Your task to perform on an android device: Set the phone to "Do not disturb". Image 0: 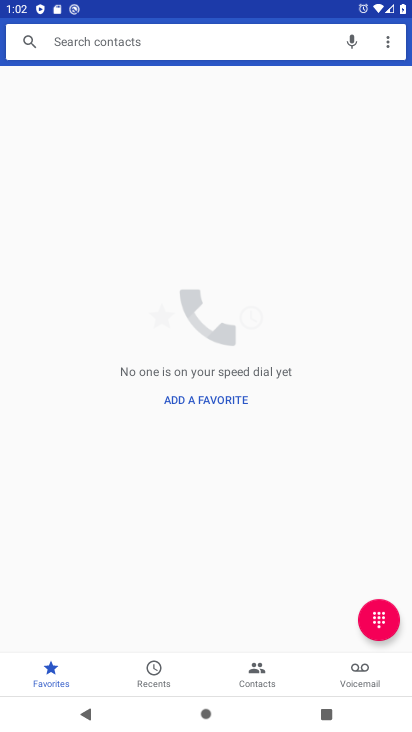
Step 0: press home button
Your task to perform on an android device: Set the phone to "Do not disturb". Image 1: 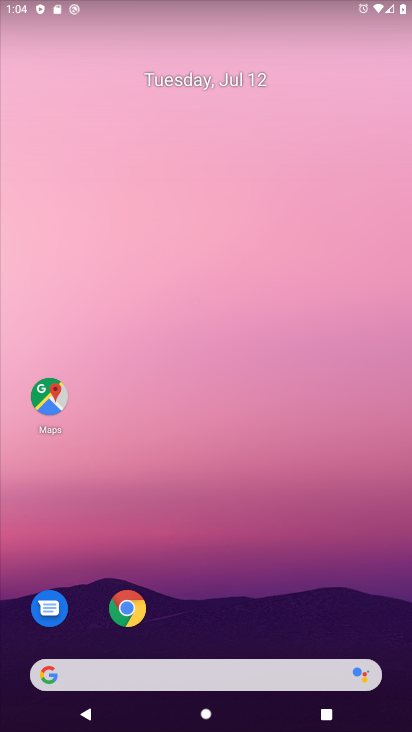
Step 1: drag from (195, 659) to (196, 149)
Your task to perform on an android device: Set the phone to "Do not disturb". Image 2: 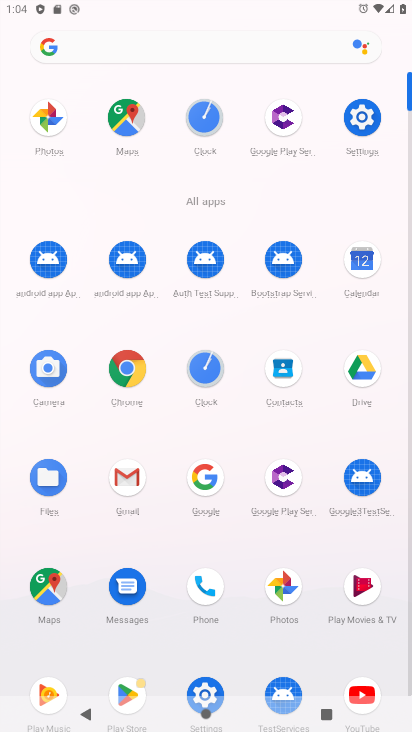
Step 2: click (361, 114)
Your task to perform on an android device: Set the phone to "Do not disturb". Image 3: 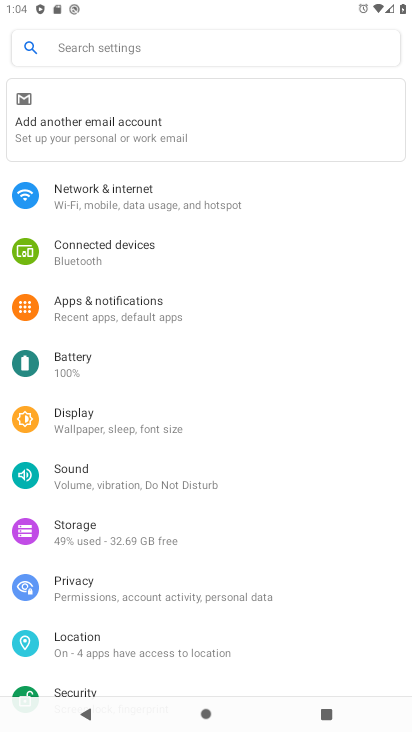
Step 3: click (138, 483)
Your task to perform on an android device: Set the phone to "Do not disturb". Image 4: 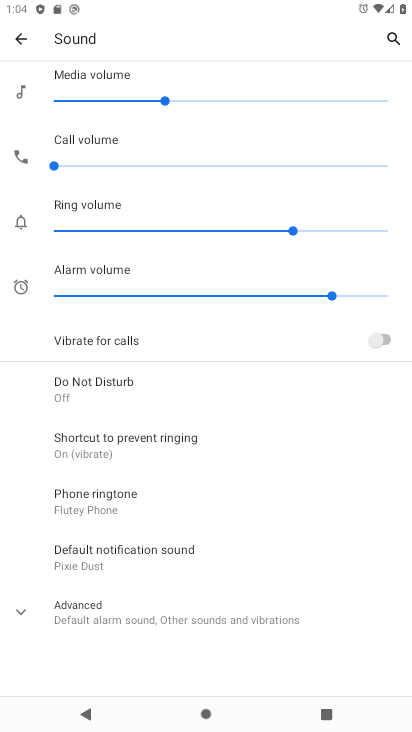
Step 4: click (100, 390)
Your task to perform on an android device: Set the phone to "Do not disturb". Image 5: 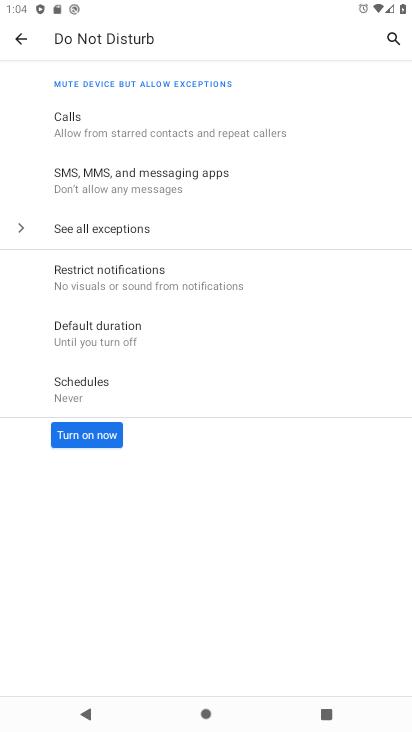
Step 5: click (108, 433)
Your task to perform on an android device: Set the phone to "Do not disturb". Image 6: 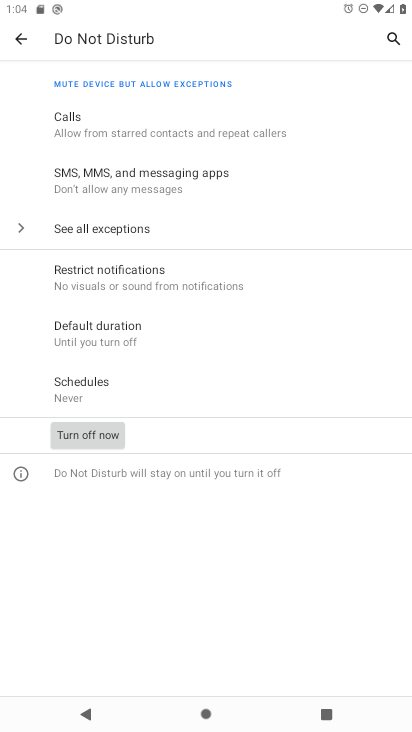
Step 6: task complete